Your task to perform on an android device: Add usb-a to usb-b to the cart on costco.com Image 0: 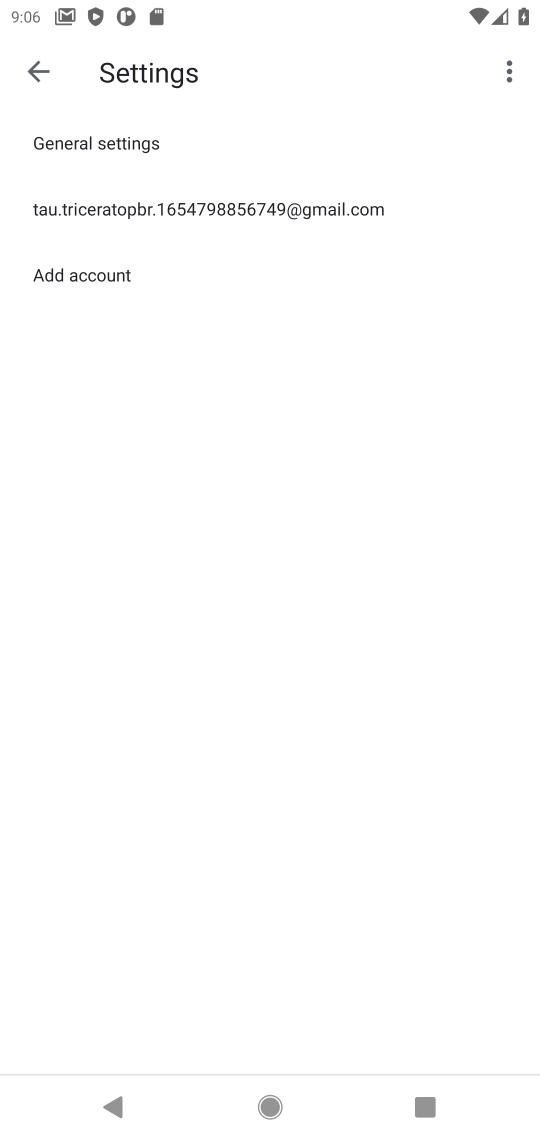
Step 0: press home button
Your task to perform on an android device: Add usb-a to usb-b to the cart on costco.com Image 1: 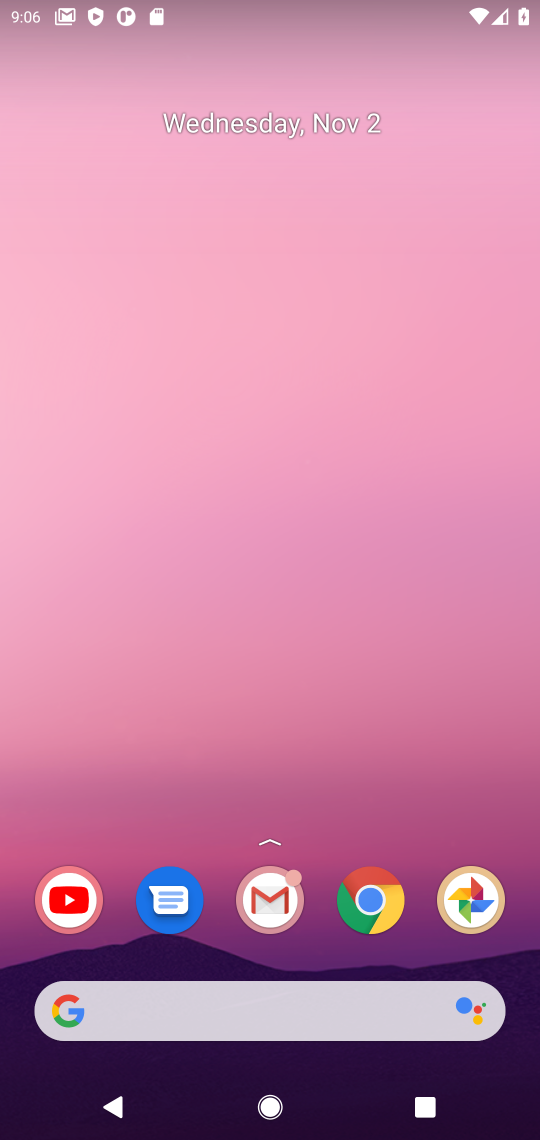
Step 1: click (364, 899)
Your task to perform on an android device: Add usb-a to usb-b to the cart on costco.com Image 2: 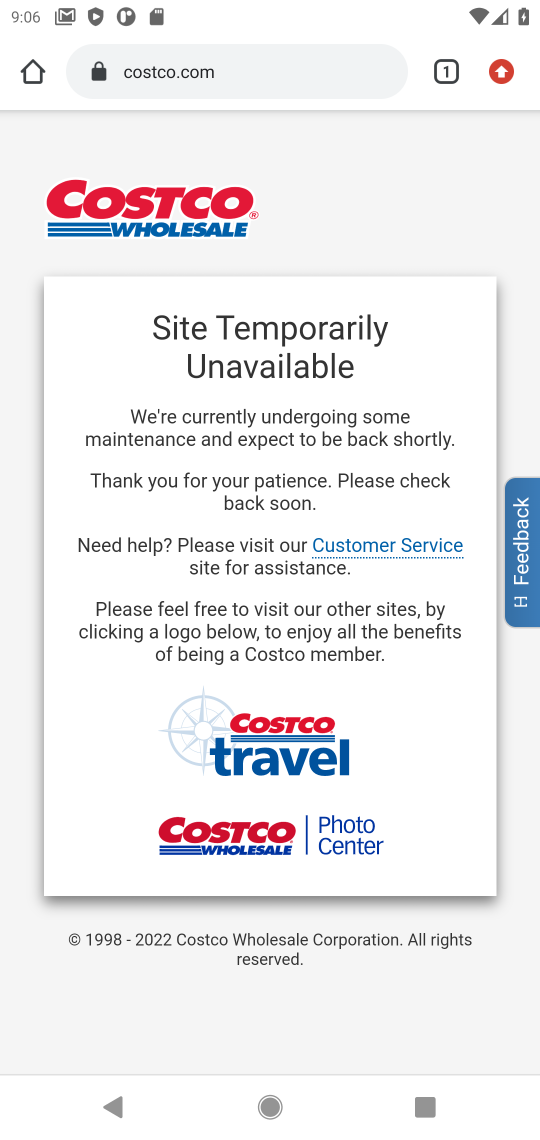
Step 2: click (206, 62)
Your task to perform on an android device: Add usb-a to usb-b to the cart on costco.com Image 3: 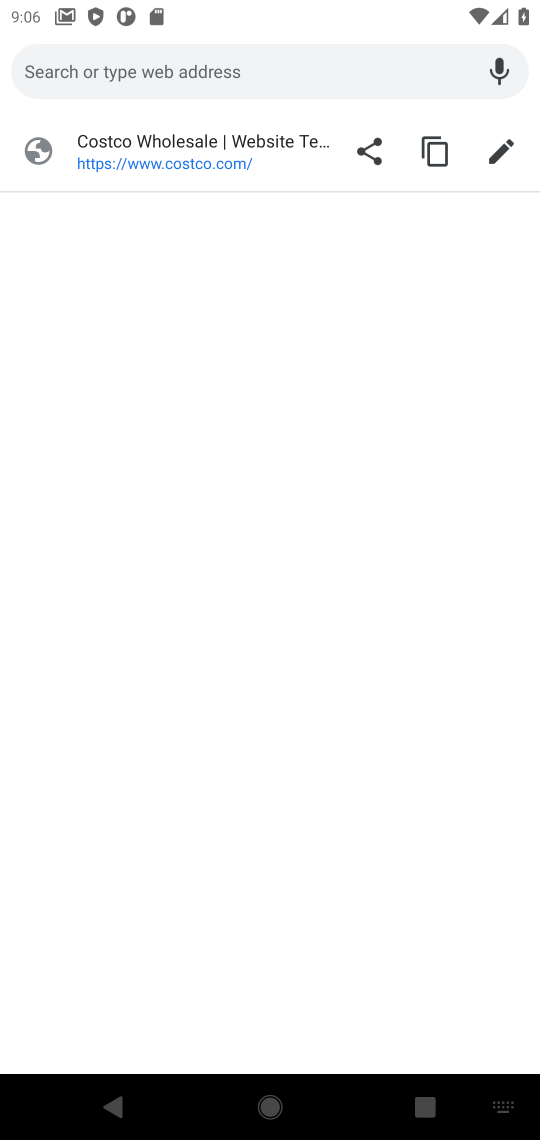
Step 3: type "costco"
Your task to perform on an android device: Add usb-a to usb-b to the cart on costco.com Image 4: 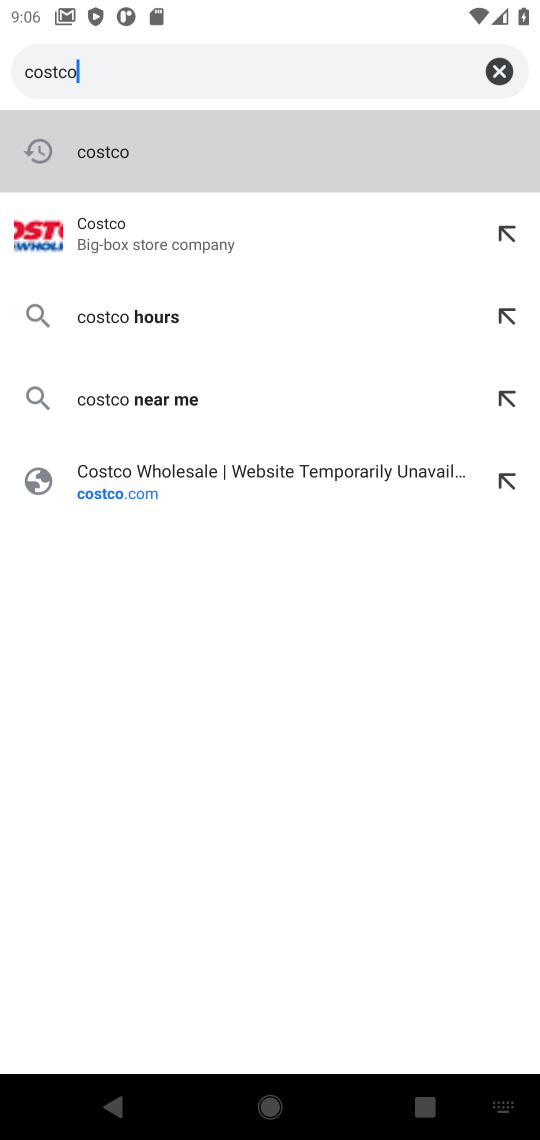
Step 4: click (86, 256)
Your task to perform on an android device: Add usb-a to usb-b to the cart on costco.com Image 5: 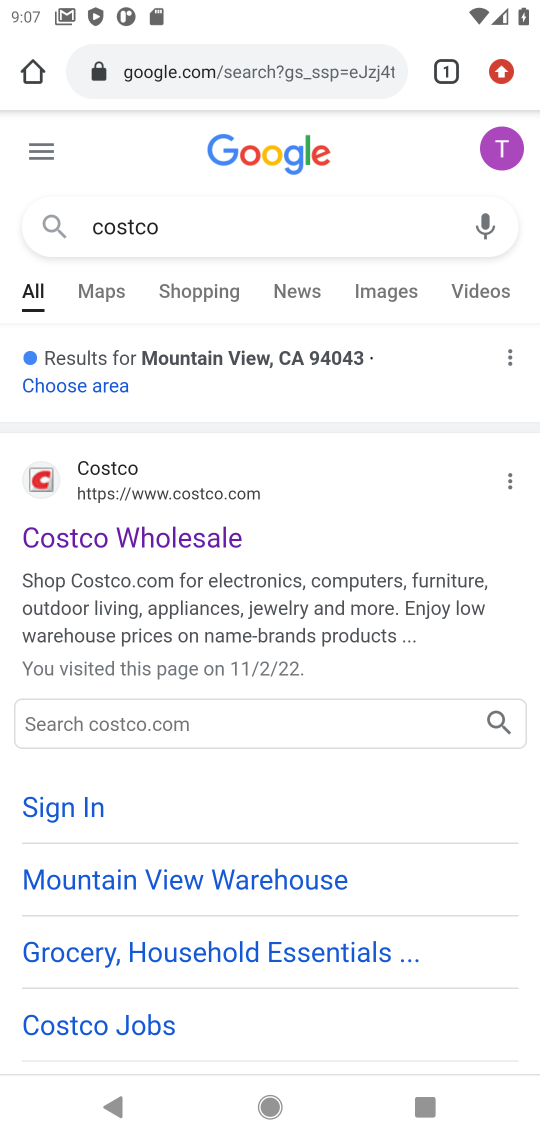
Step 5: click (58, 541)
Your task to perform on an android device: Add usb-a to usb-b to the cart on costco.com Image 6: 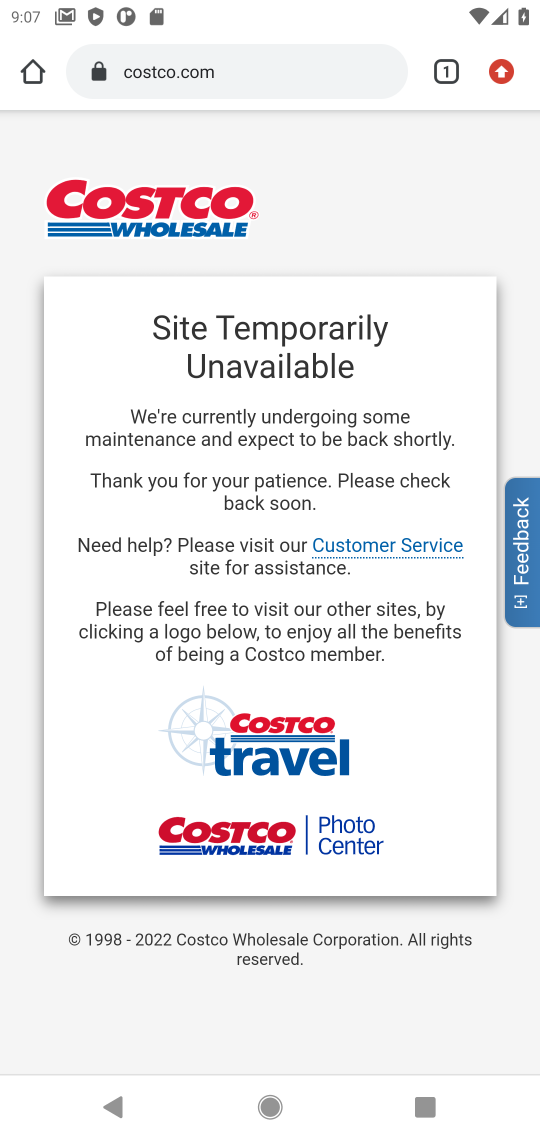
Step 6: task complete